Your task to perform on an android device: Search for pizza restaurants on Maps Image 0: 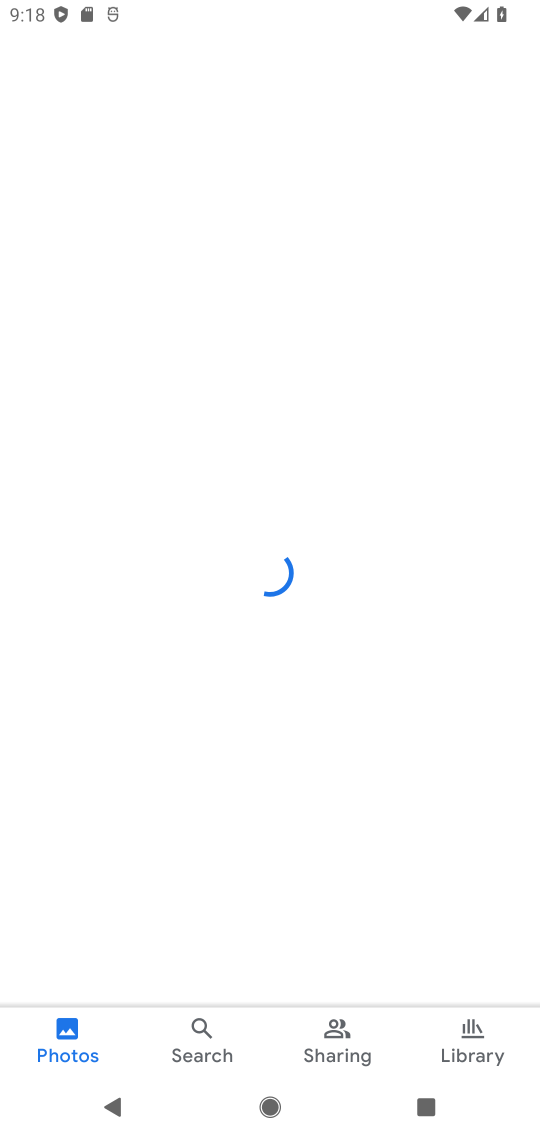
Step 0: press back button
Your task to perform on an android device: Search for pizza restaurants on Maps Image 1: 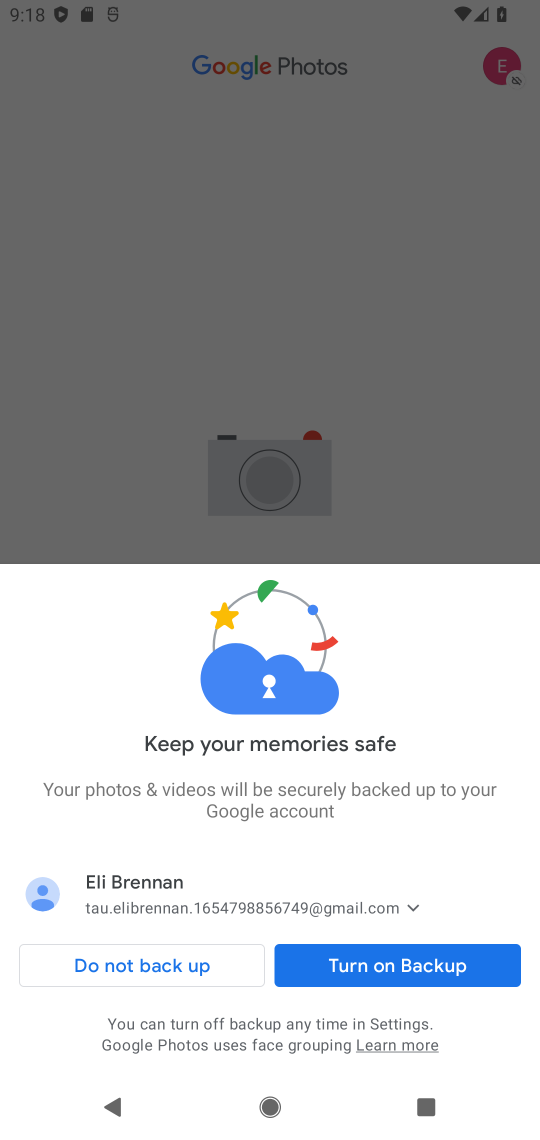
Step 1: press back button
Your task to perform on an android device: Search for pizza restaurants on Maps Image 2: 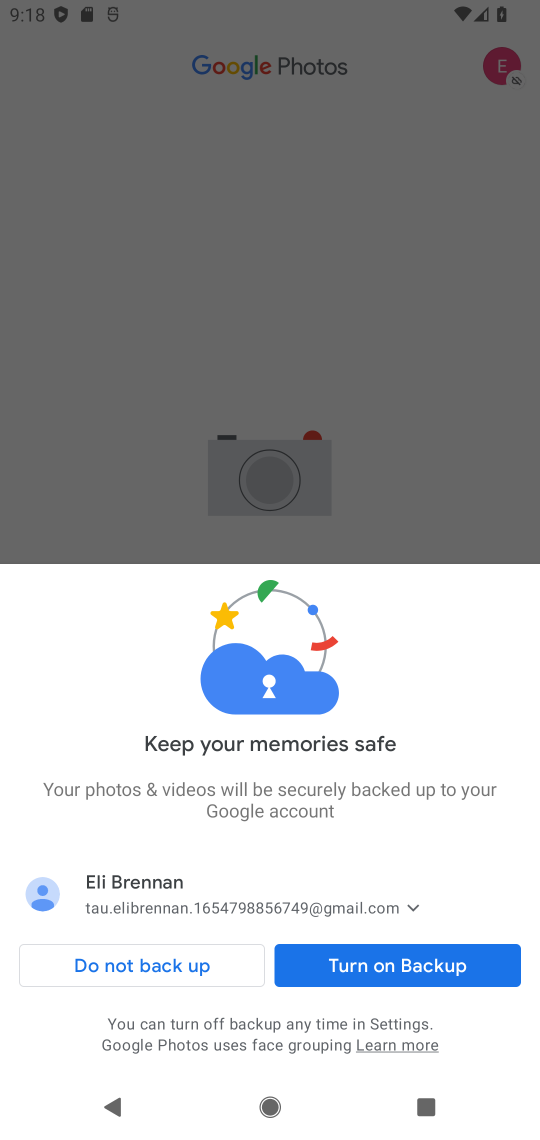
Step 2: press home button
Your task to perform on an android device: Search for pizza restaurants on Maps Image 3: 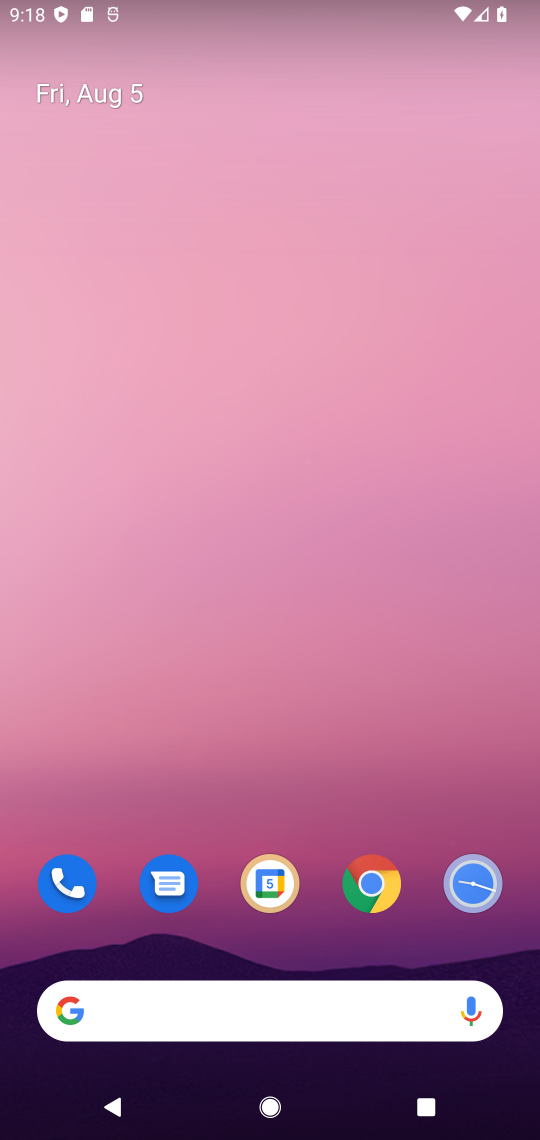
Step 3: drag from (215, 931) to (339, 37)
Your task to perform on an android device: Search for pizza restaurants on Maps Image 4: 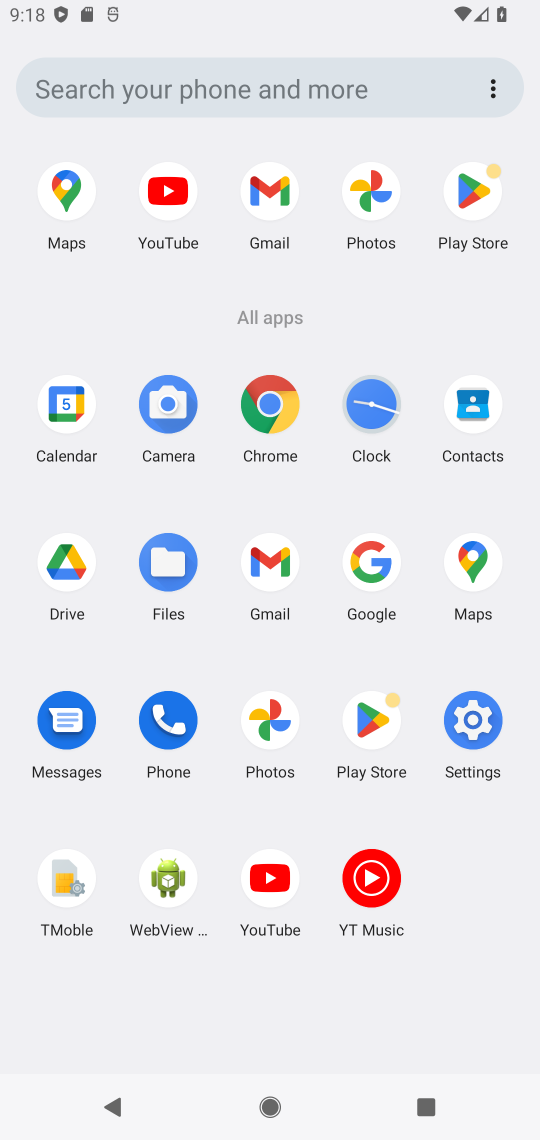
Step 4: click (470, 561)
Your task to perform on an android device: Search for pizza restaurants on Maps Image 5: 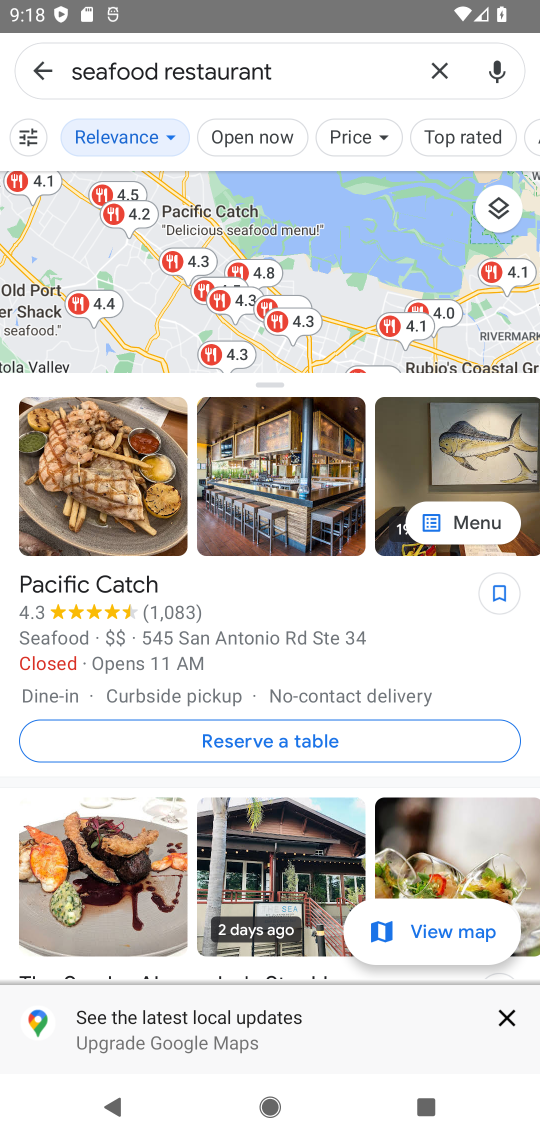
Step 5: click (441, 60)
Your task to perform on an android device: Search for pizza restaurants on Maps Image 6: 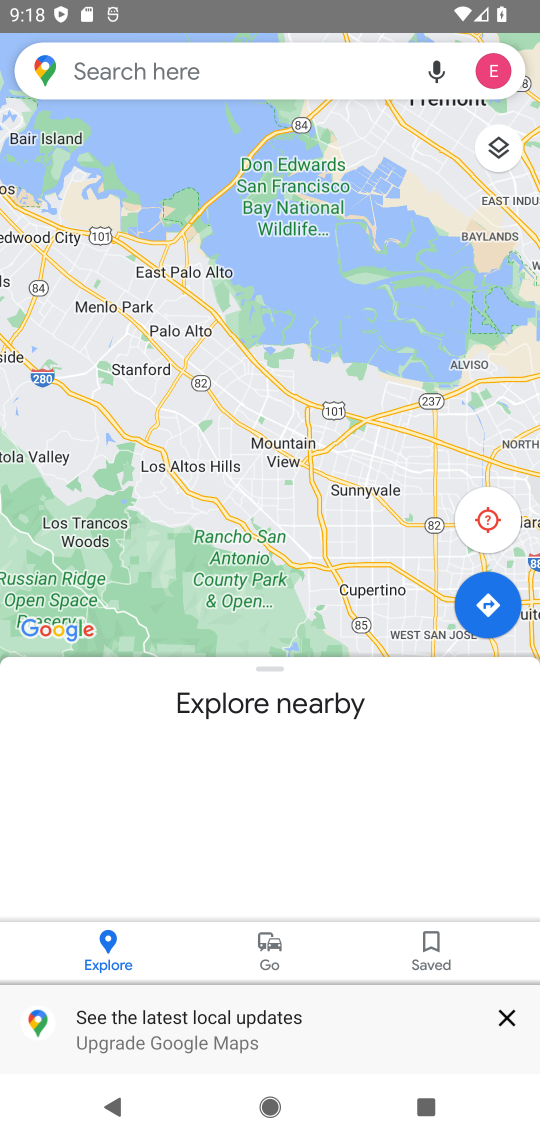
Step 6: click (222, 79)
Your task to perform on an android device: Search for pizza restaurants on Maps Image 7: 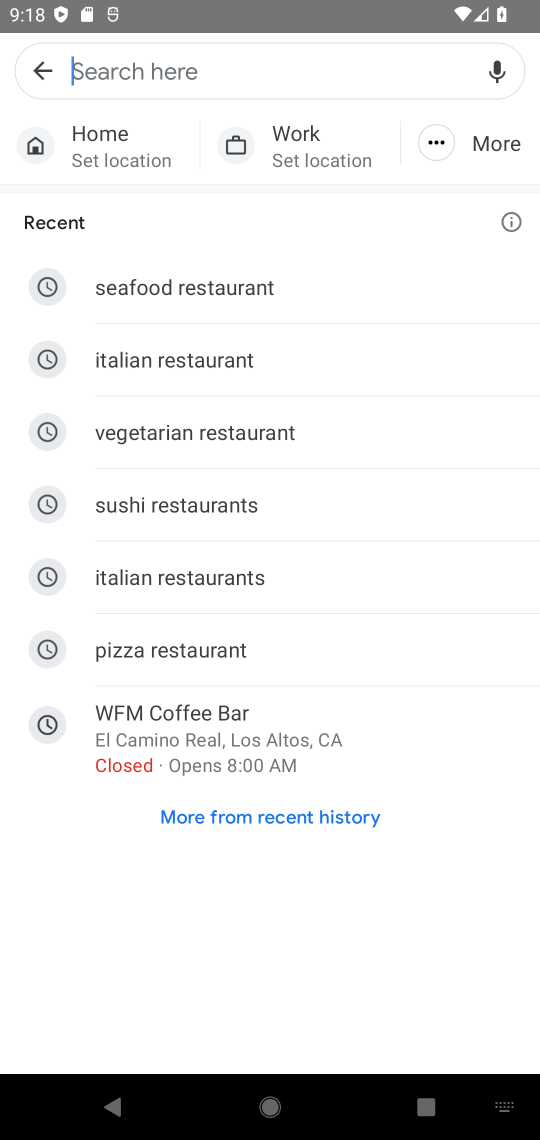
Step 7: type "pizza"
Your task to perform on an android device: Search for pizza restaurants on Maps Image 8: 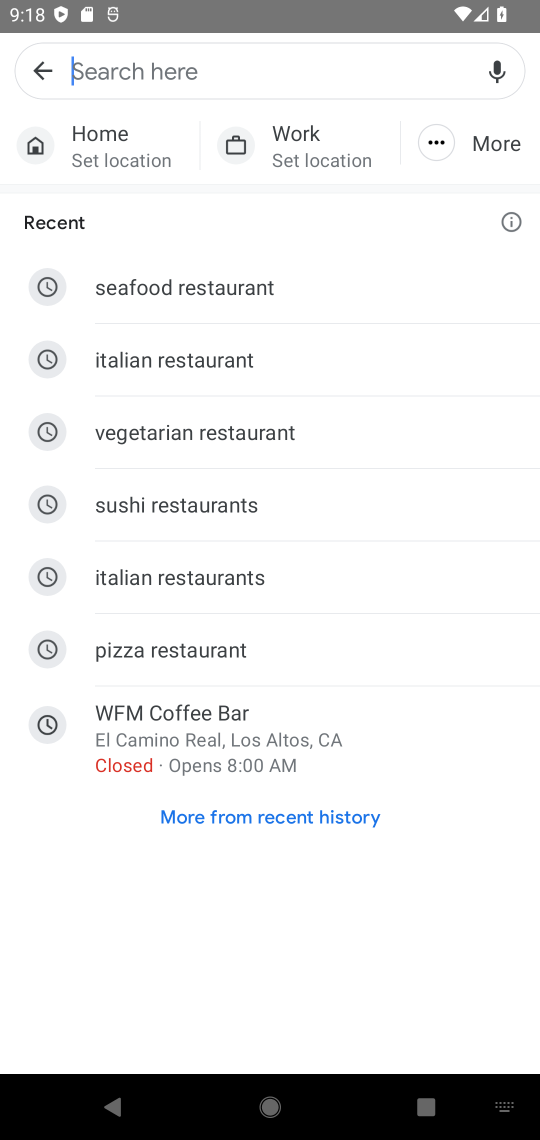
Step 8: click (161, 648)
Your task to perform on an android device: Search for pizza restaurants on Maps Image 9: 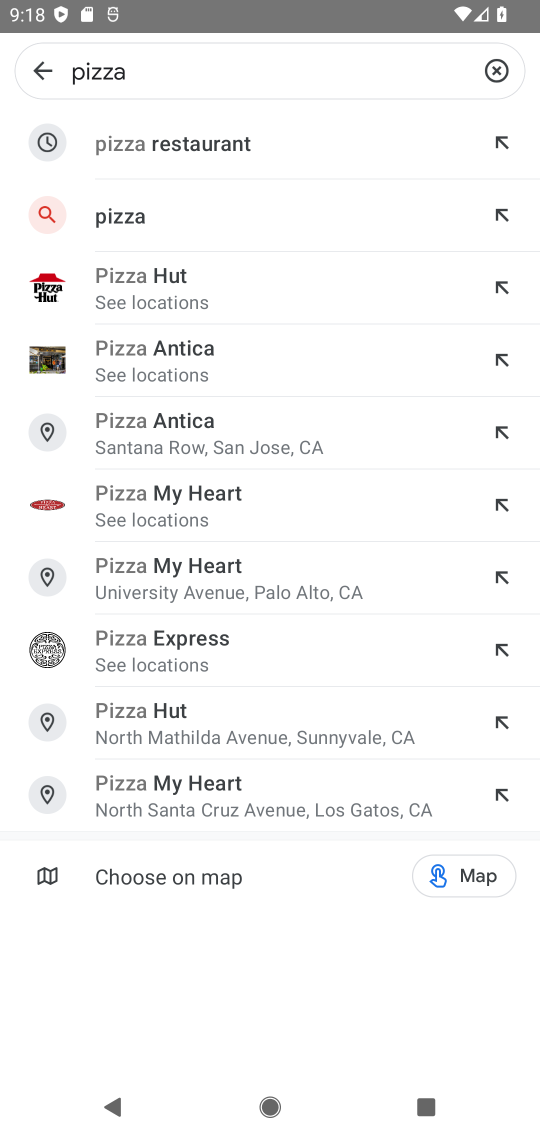
Step 9: click (198, 138)
Your task to perform on an android device: Search for pizza restaurants on Maps Image 10: 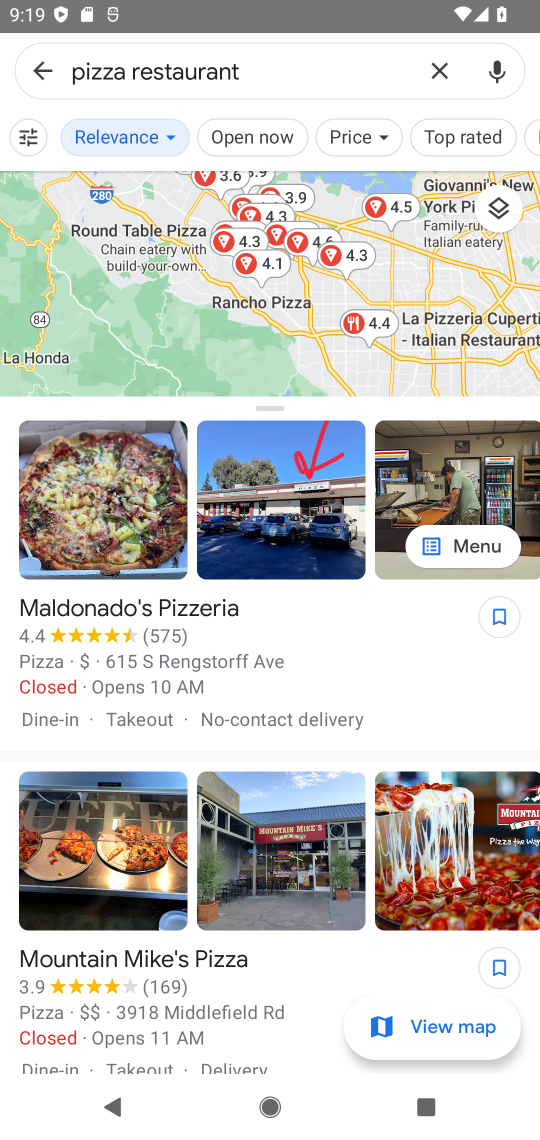
Step 10: task complete